Your task to perform on an android device: read, delete, or share a saved page in the chrome app Image 0: 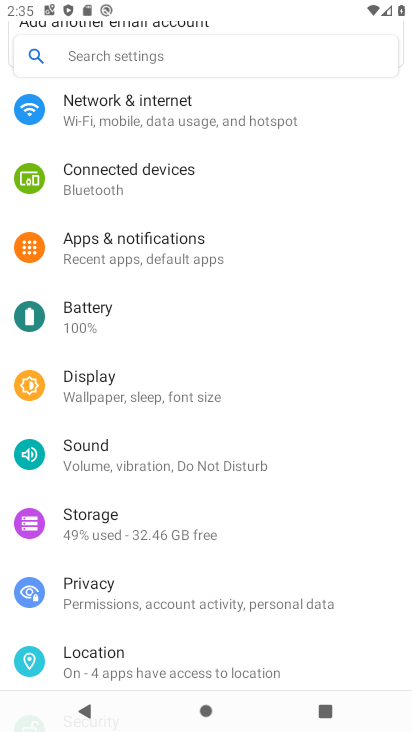
Step 0: press home button
Your task to perform on an android device: read, delete, or share a saved page in the chrome app Image 1: 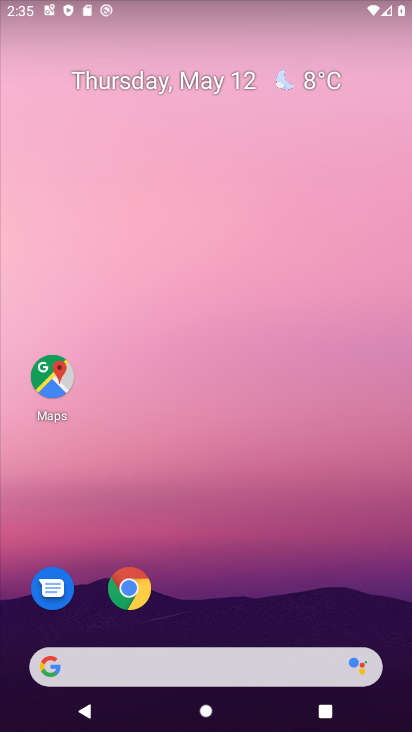
Step 1: click (130, 584)
Your task to perform on an android device: read, delete, or share a saved page in the chrome app Image 2: 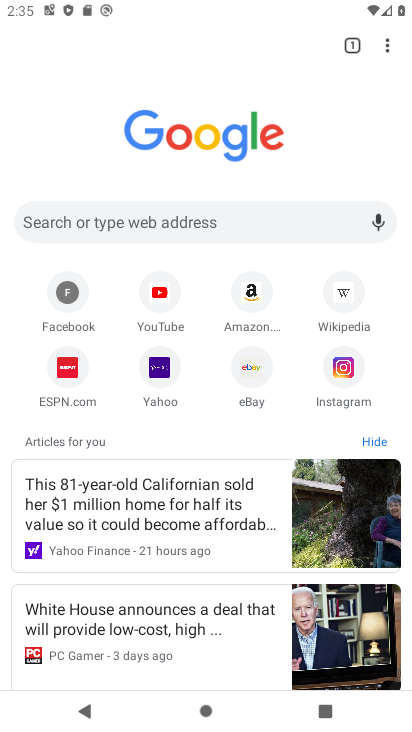
Step 2: click (385, 40)
Your task to perform on an android device: read, delete, or share a saved page in the chrome app Image 3: 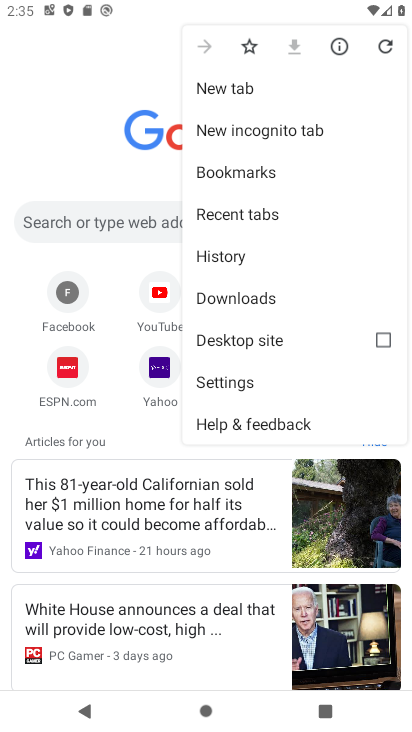
Step 3: click (263, 368)
Your task to perform on an android device: read, delete, or share a saved page in the chrome app Image 4: 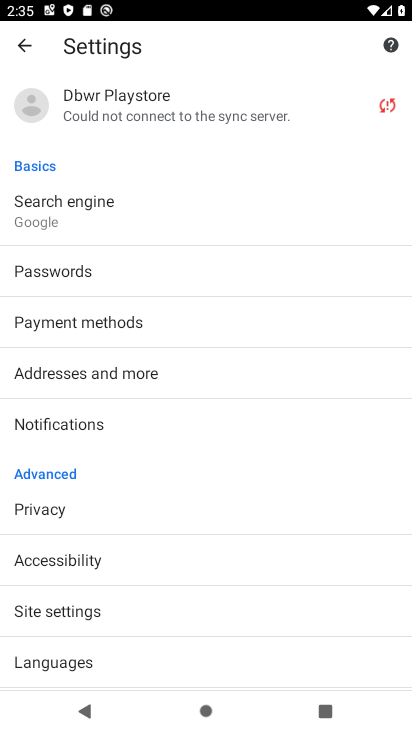
Step 4: click (10, 46)
Your task to perform on an android device: read, delete, or share a saved page in the chrome app Image 5: 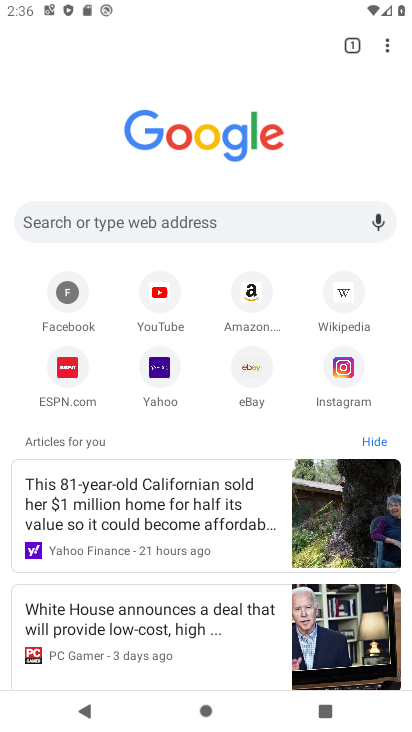
Step 5: click (393, 43)
Your task to perform on an android device: read, delete, or share a saved page in the chrome app Image 6: 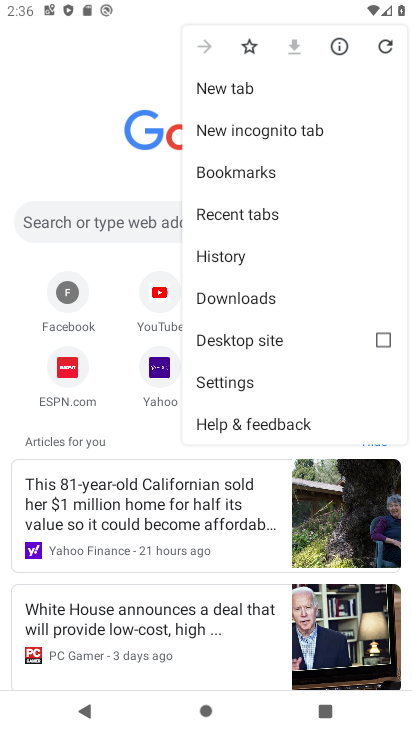
Step 6: click (293, 209)
Your task to perform on an android device: read, delete, or share a saved page in the chrome app Image 7: 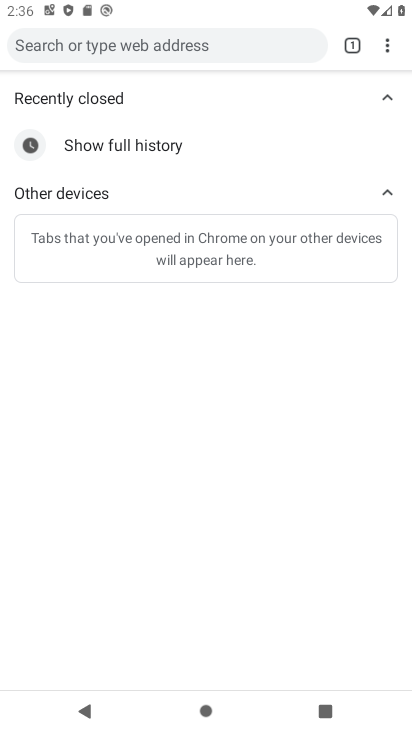
Step 7: click (76, 715)
Your task to perform on an android device: read, delete, or share a saved page in the chrome app Image 8: 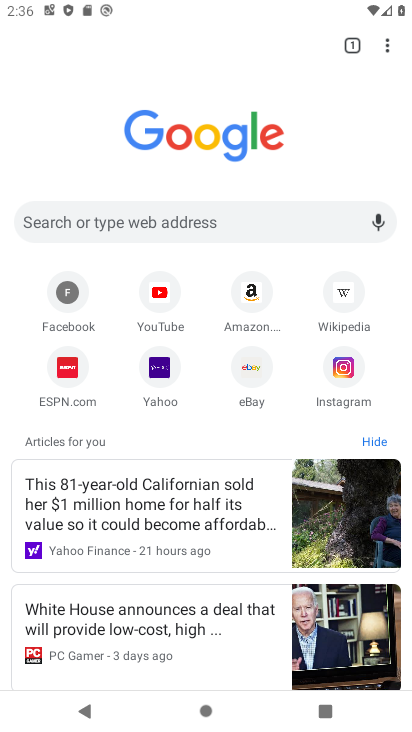
Step 8: click (394, 53)
Your task to perform on an android device: read, delete, or share a saved page in the chrome app Image 9: 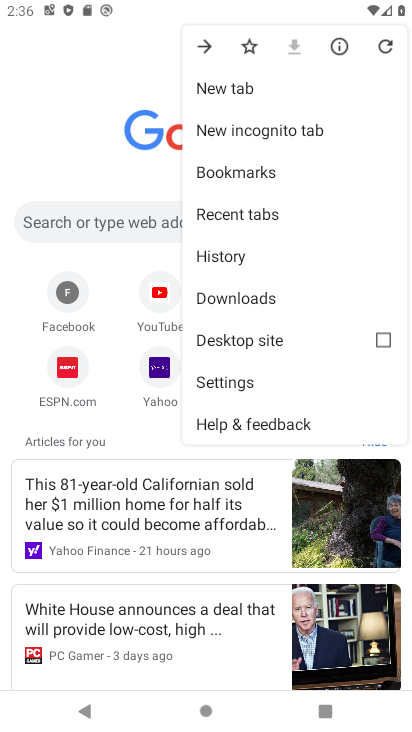
Step 9: click (290, 305)
Your task to perform on an android device: read, delete, or share a saved page in the chrome app Image 10: 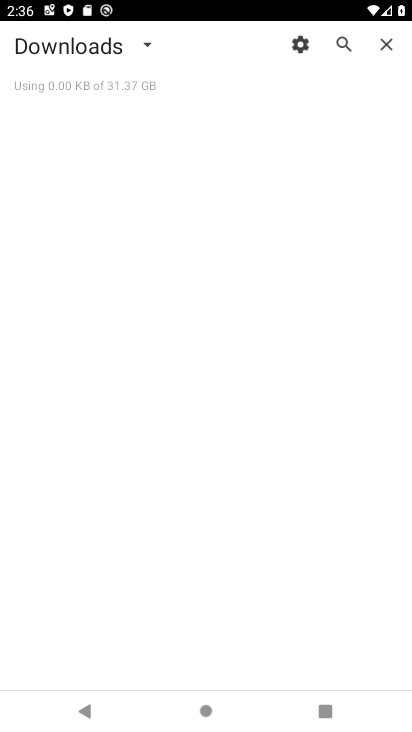
Step 10: task complete